Your task to perform on an android device: View the shopping cart on newegg. Add "usb-a to usb-b" to the cart on newegg, then select checkout. Image 0: 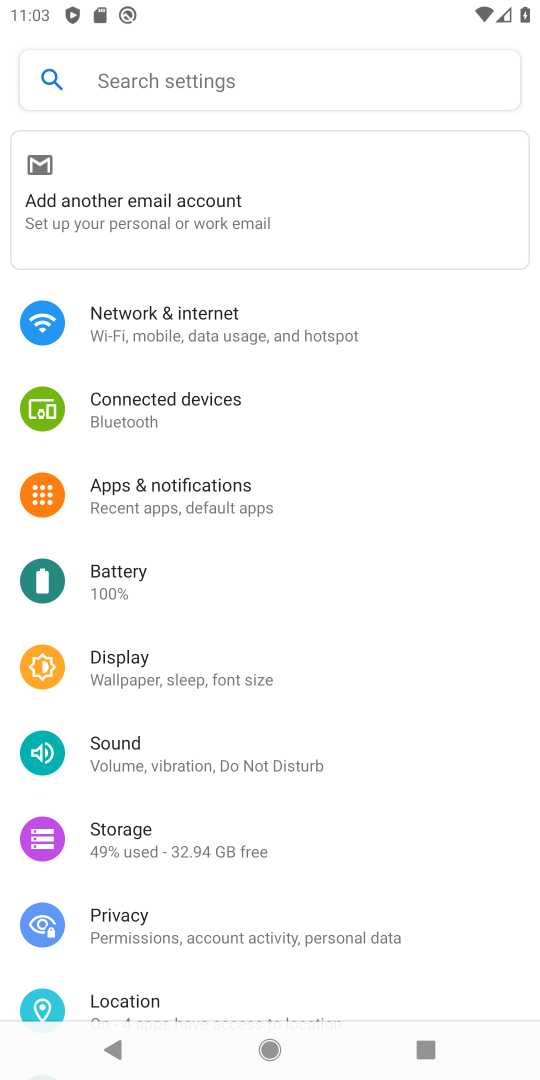
Step 0: press home button
Your task to perform on an android device: View the shopping cart on newegg. Add "usb-a to usb-b" to the cart on newegg, then select checkout. Image 1: 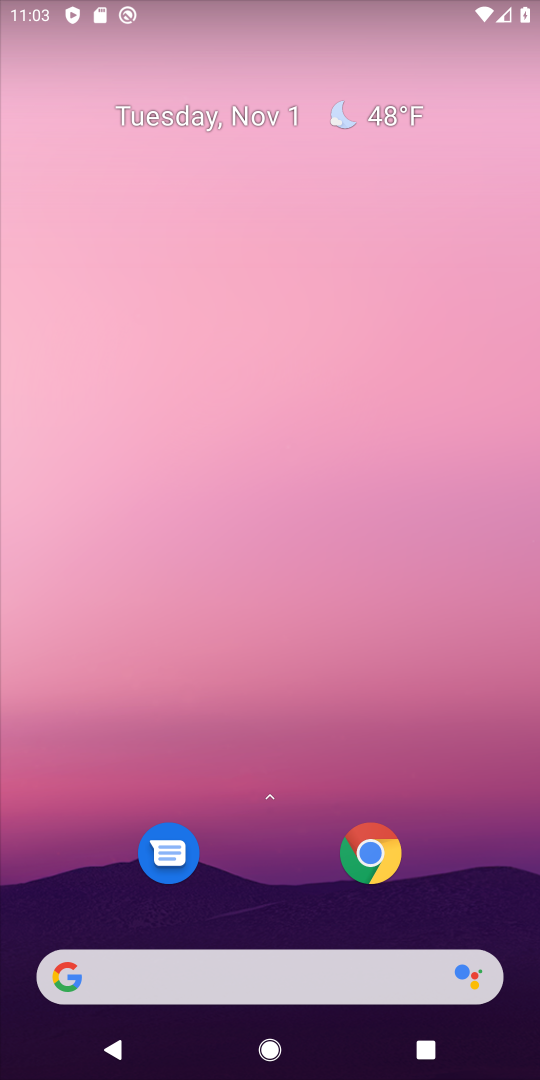
Step 1: drag from (329, 1030) to (303, 11)
Your task to perform on an android device: View the shopping cart on newegg. Add "usb-a to usb-b" to the cart on newegg, then select checkout. Image 2: 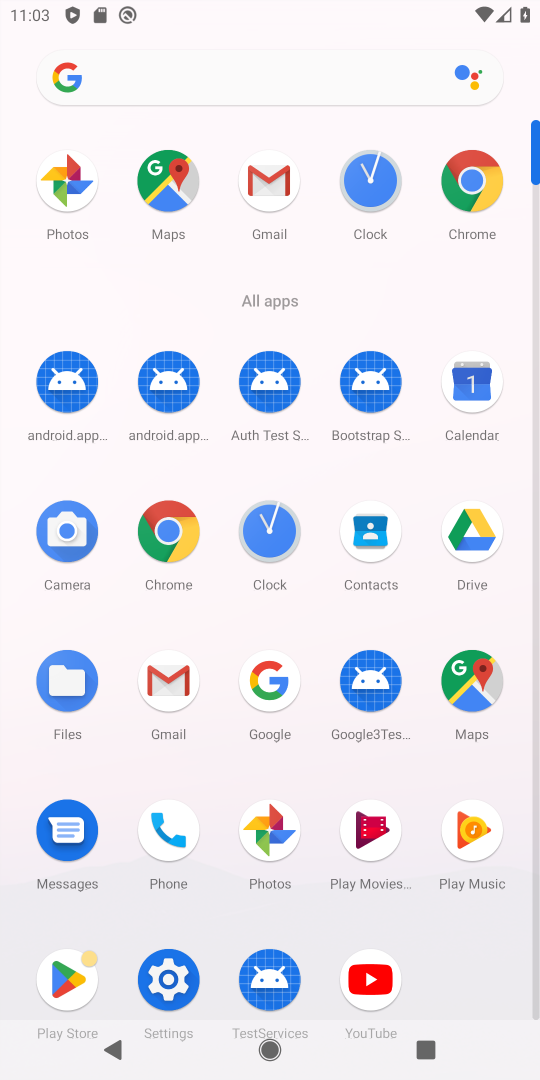
Step 2: click (168, 521)
Your task to perform on an android device: View the shopping cart on newegg. Add "usb-a to usb-b" to the cart on newegg, then select checkout. Image 3: 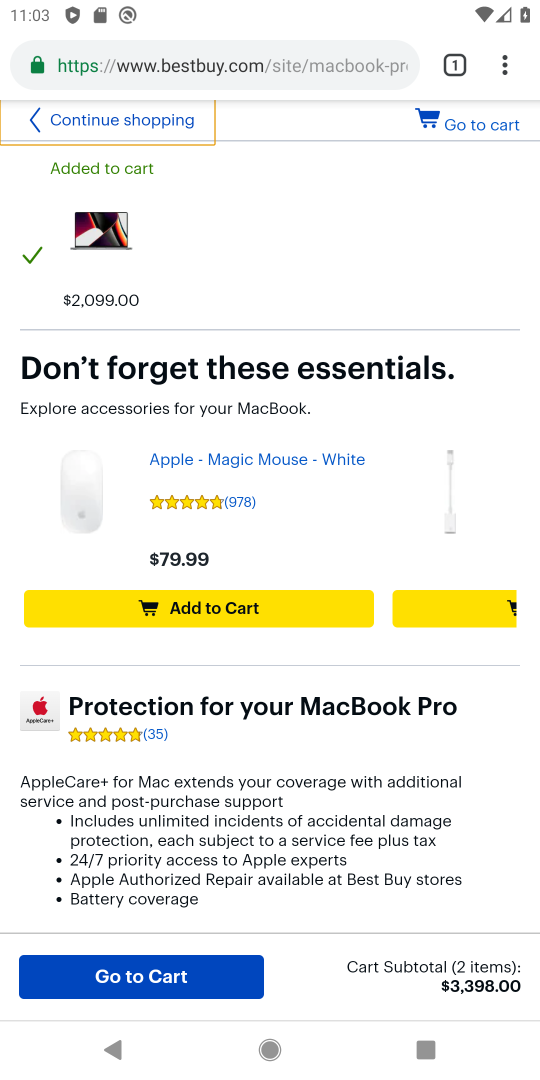
Step 3: drag from (343, 161) to (247, 67)
Your task to perform on an android device: View the shopping cart on newegg. Add "usb-a to usb-b" to the cart on newegg, then select checkout. Image 4: 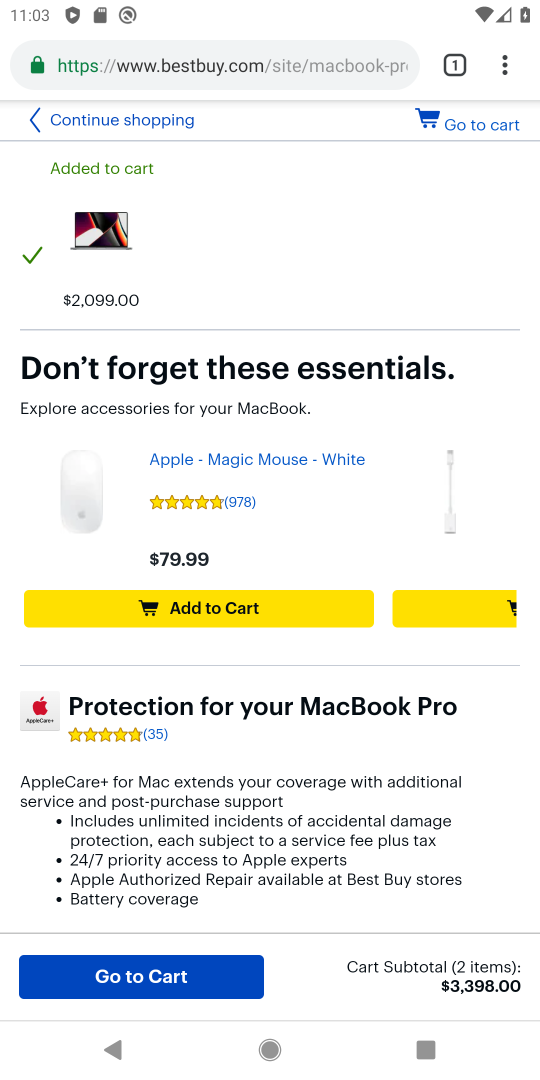
Step 4: click (226, 56)
Your task to perform on an android device: View the shopping cart on newegg. Add "usb-a to usb-b" to the cart on newegg, then select checkout. Image 5: 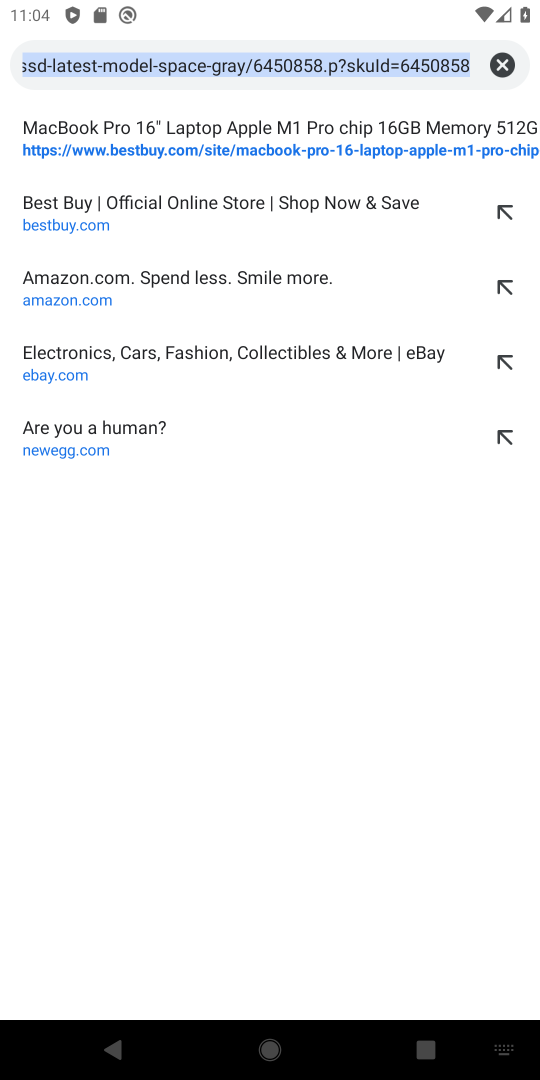
Step 5: click (503, 58)
Your task to perform on an android device: View the shopping cart on newegg. Add "usb-a to usb-b" to the cart on newegg, then select checkout. Image 6: 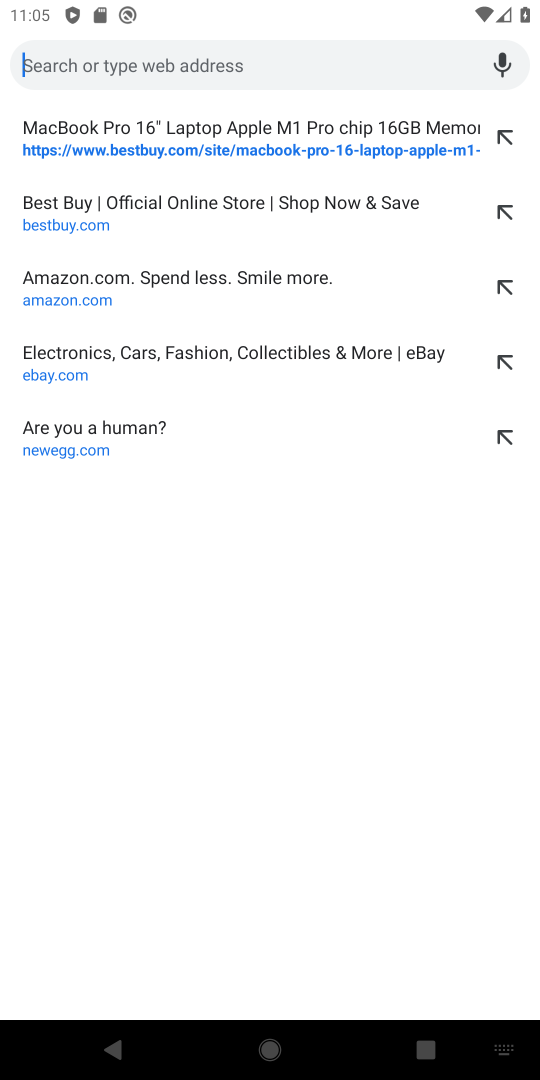
Step 6: type "newegg"
Your task to perform on an android device: View the shopping cart on newegg. Add "usb-a to usb-b" to the cart on newegg, then select checkout. Image 7: 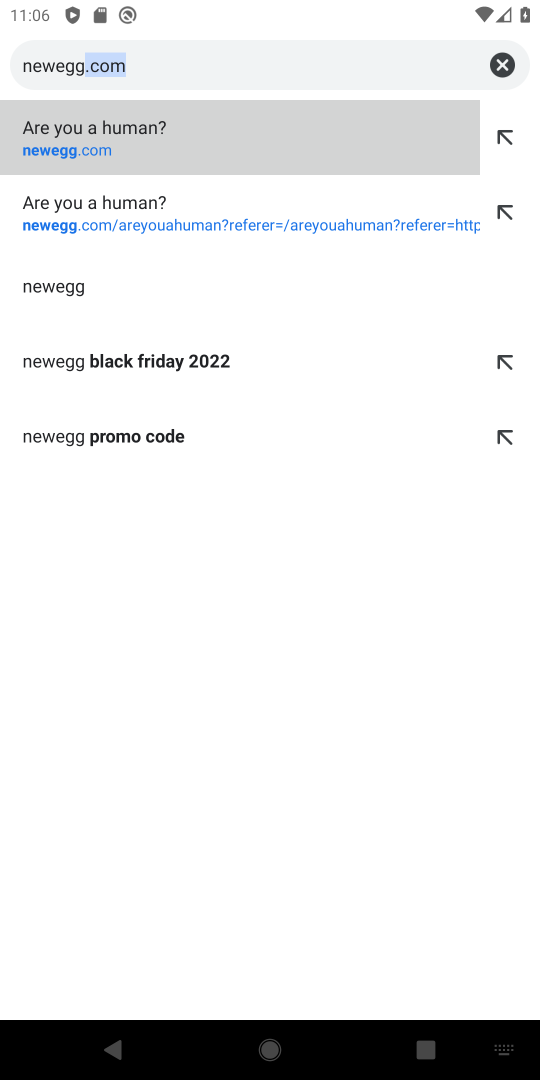
Step 7: click (64, 146)
Your task to perform on an android device: View the shopping cart on newegg. Add "usb-a to usb-b" to the cart on newegg, then select checkout. Image 8: 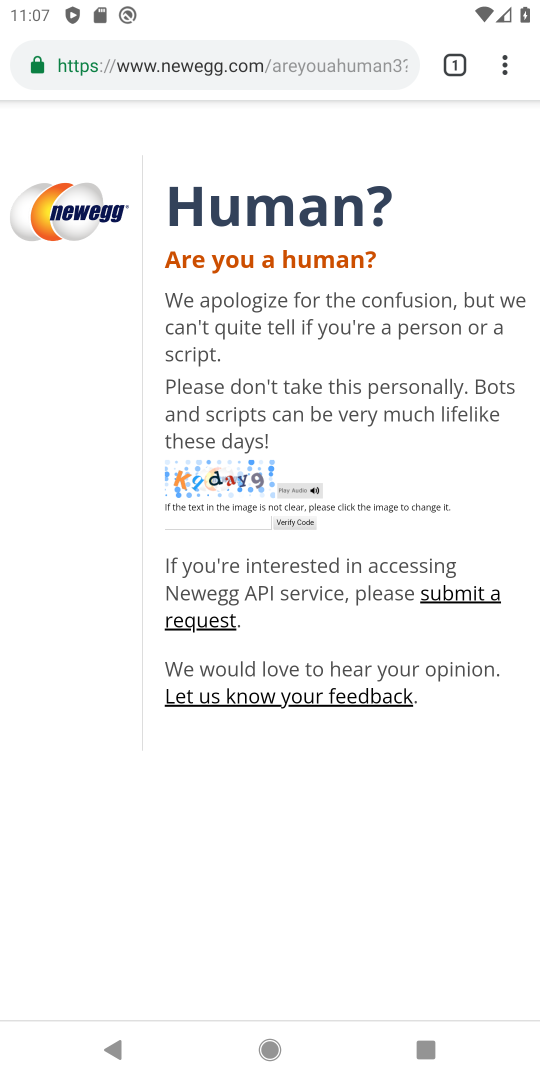
Step 8: press home button
Your task to perform on an android device: View the shopping cart on newegg. Add "usb-a to usb-b" to the cart on newegg, then select checkout. Image 9: 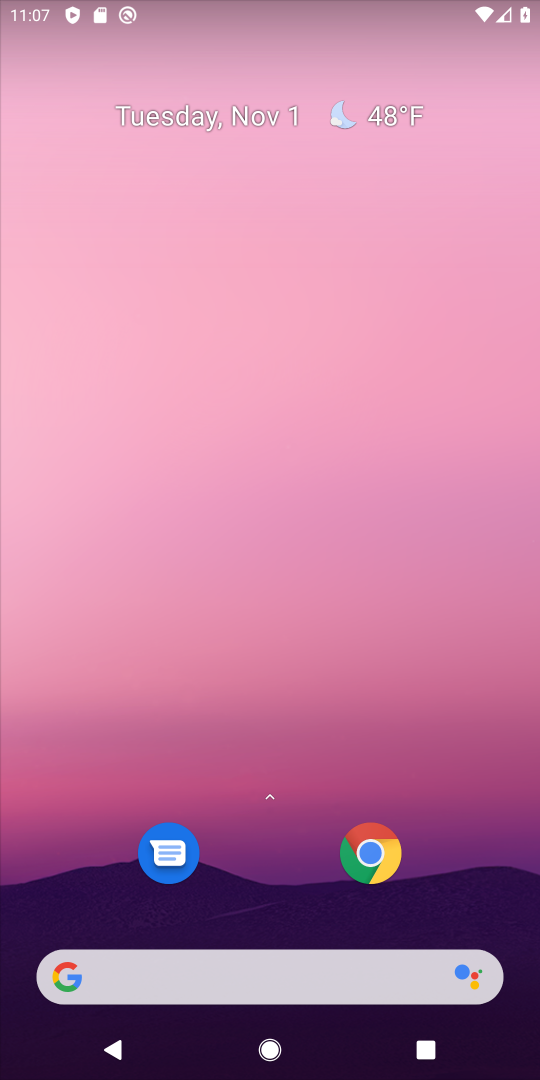
Step 9: drag from (326, 1020) to (322, 54)
Your task to perform on an android device: View the shopping cart on newegg. Add "usb-a to usb-b" to the cart on newegg, then select checkout. Image 10: 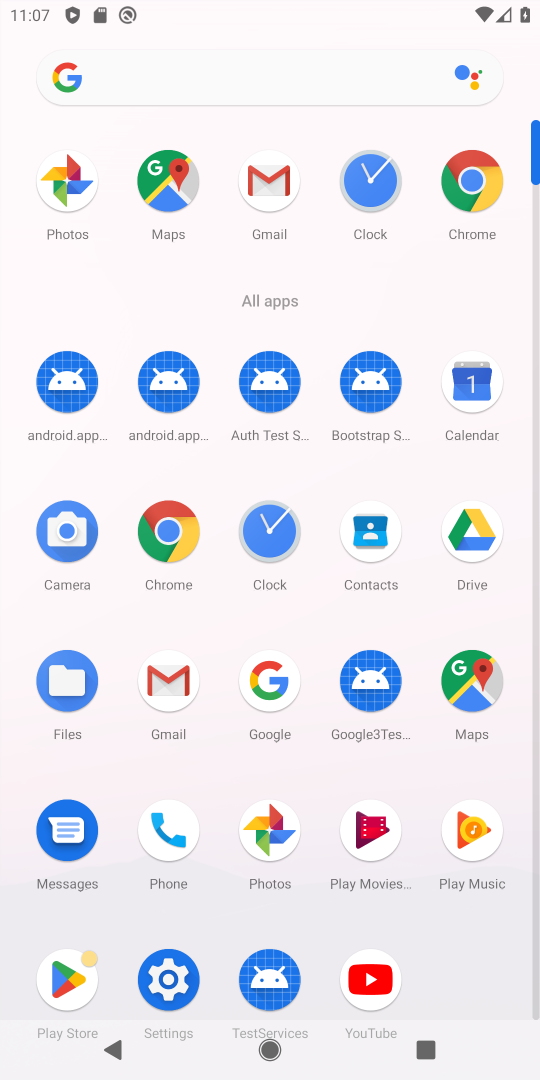
Step 10: click (164, 533)
Your task to perform on an android device: View the shopping cart on newegg. Add "usb-a to usb-b" to the cart on newegg, then select checkout. Image 11: 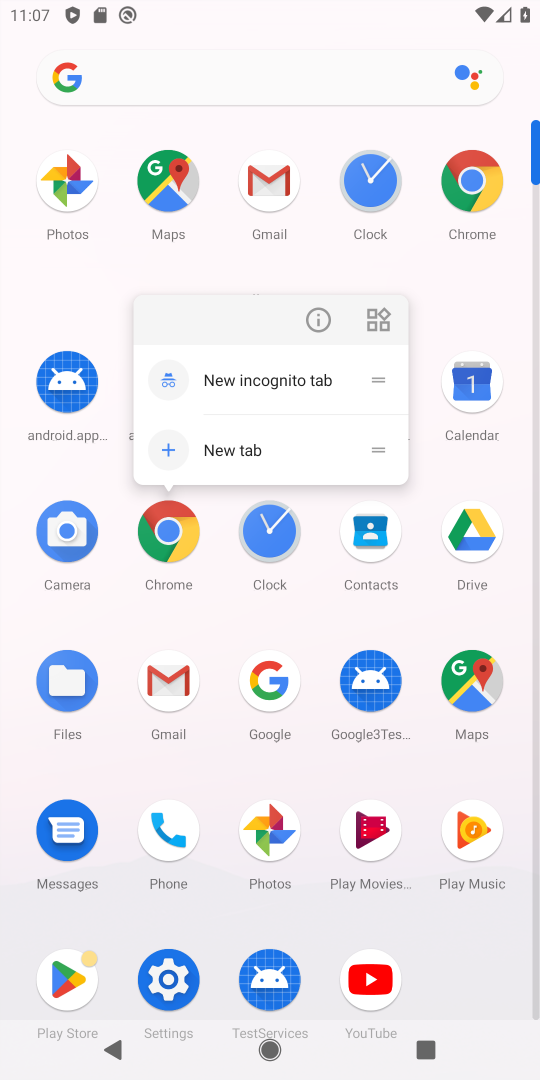
Step 11: click (173, 516)
Your task to perform on an android device: View the shopping cart on newegg. Add "usb-a to usb-b" to the cart on newegg, then select checkout. Image 12: 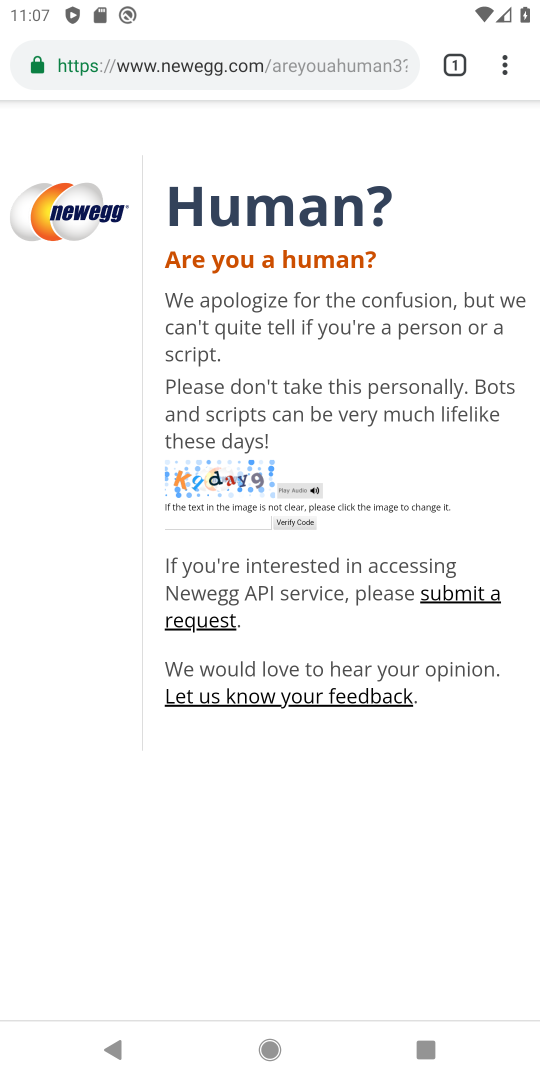
Step 12: click (287, 65)
Your task to perform on an android device: View the shopping cart on newegg. Add "usb-a to usb-b" to the cart on newegg, then select checkout. Image 13: 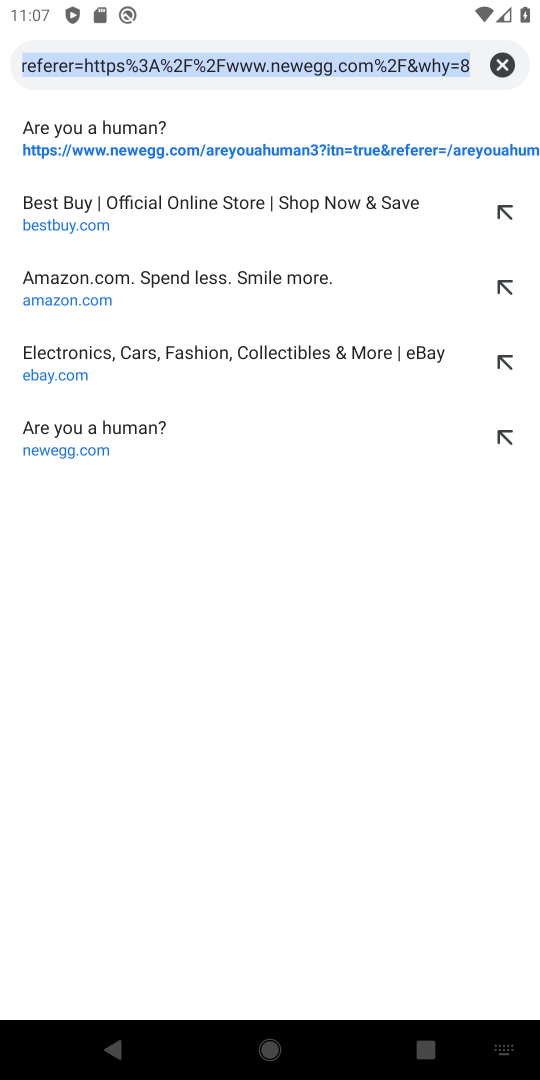
Step 13: click (503, 54)
Your task to perform on an android device: View the shopping cart on newegg. Add "usb-a to usb-b" to the cart on newegg, then select checkout. Image 14: 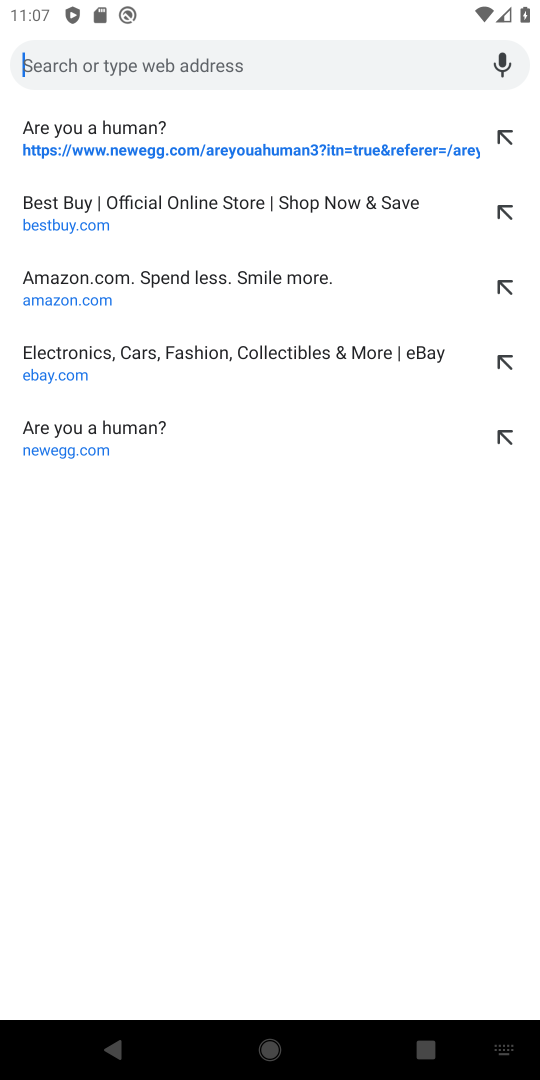
Step 14: click (99, 223)
Your task to perform on an android device: View the shopping cart on newegg. Add "usb-a to usb-b" to the cart on newegg, then select checkout. Image 15: 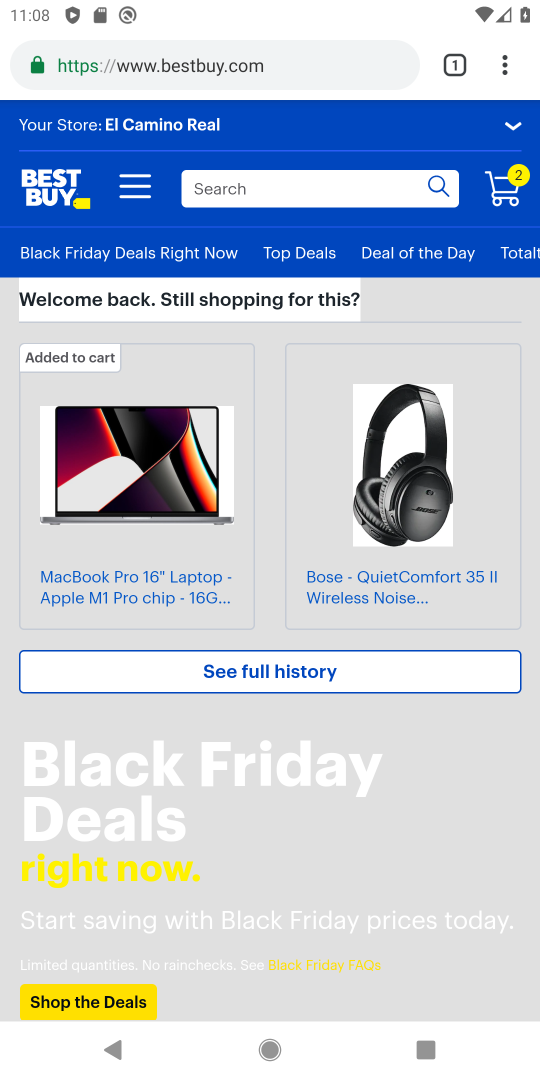
Step 15: click (261, 65)
Your task to perform on an android device: View the shopping cart on newegg. Add "usb-a to usb-b" to the cart on newegg, then select checkout. Image 16: 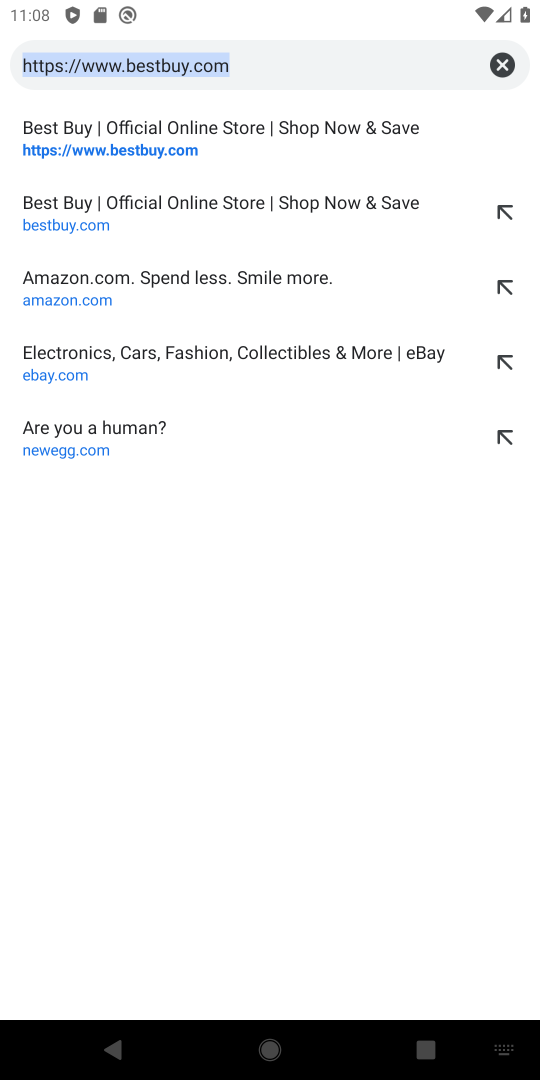
Step 16: click (495, 64)
Your task to perform on an android device: View the shopping cart on newegg. Add "usb-a to usb-b" to the cart on newegg, then select checkout. Image 17: 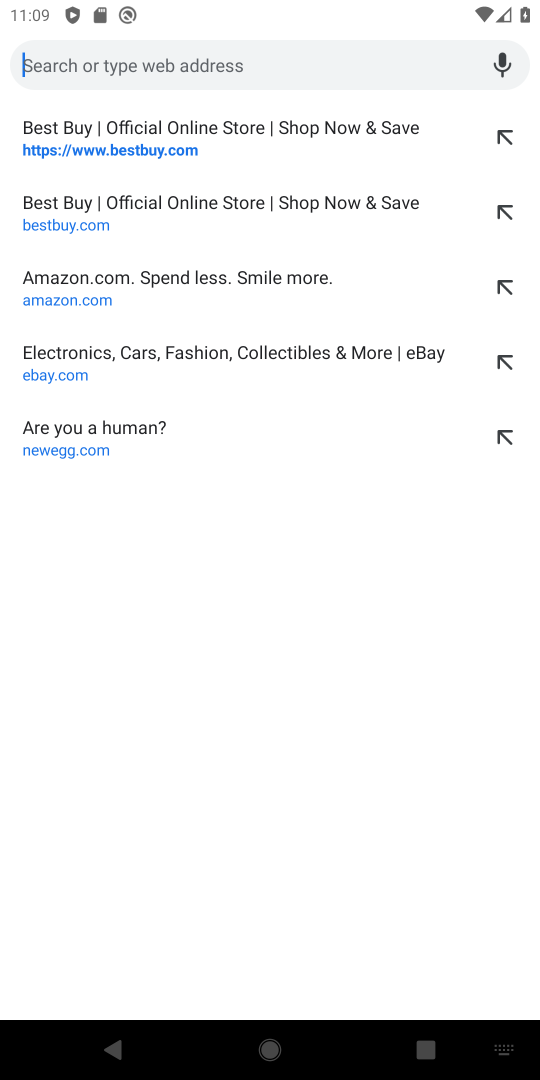
Step 17: type "newegg"
Your task to perform on an android device: View the shopping cart on newegg. Add "usb-a to usb-b" to the cart on newegg, then select checkout. Image 18: 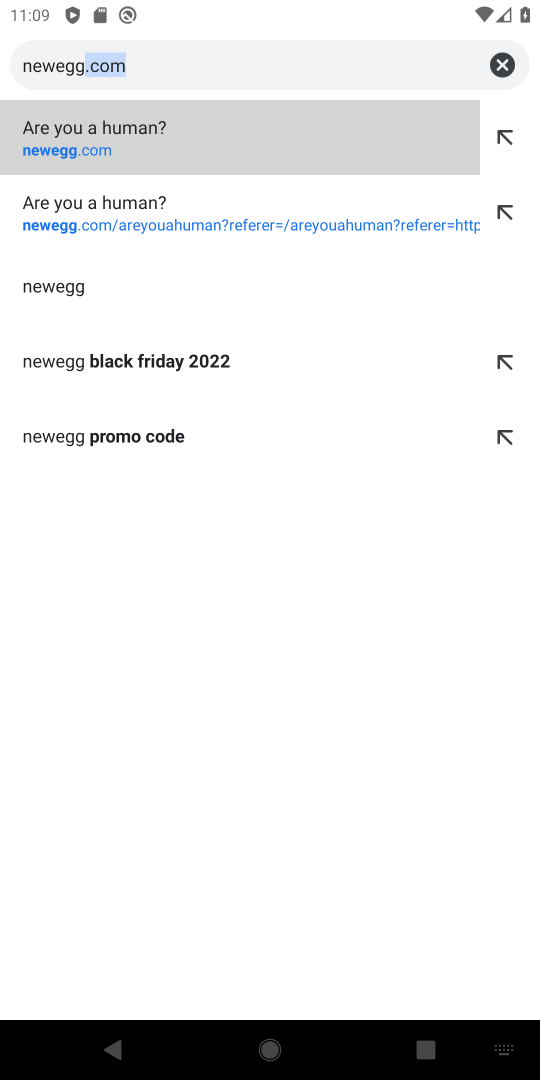
Step 18: click (42, 143)
Your task to perform on an android device: View the shopping cart on newegg. Add "usb-a to usb-b" to the cart on newegg, then select checkout. Image 19: 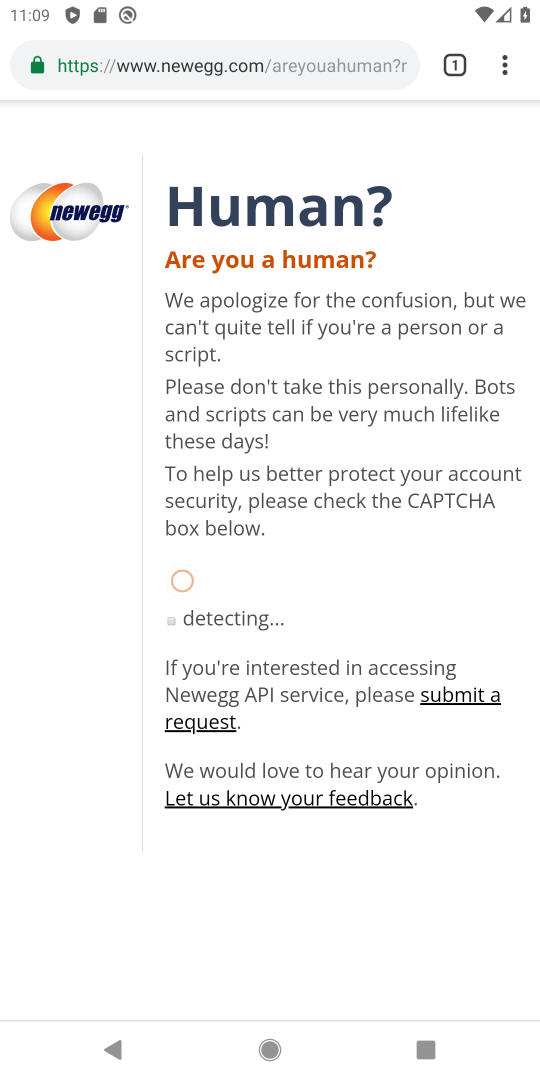
Step 19: task complete